Your task to perform on an android device: Open display settings Image 0: 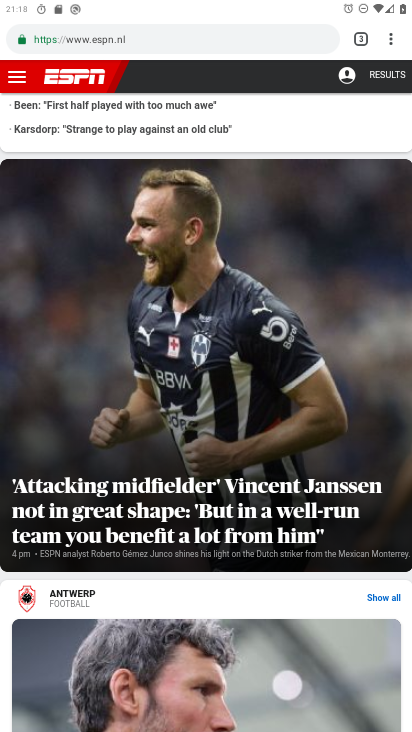
Step 0: drag from (171, 618) to (254, 158)
Your task to perform on an android device: Open display settings Image 1: 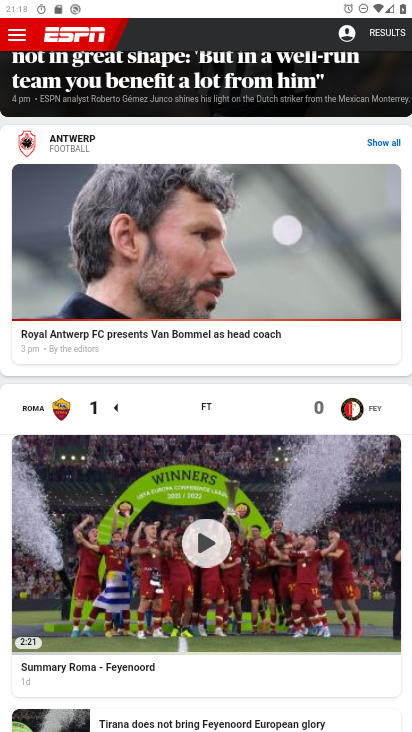
Step 1: press home button
Your task to perform on an android device: Open display settings Image 2: 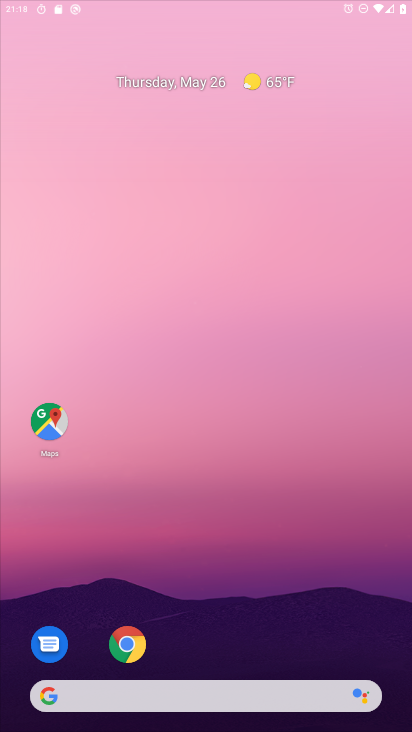
Step 2: drag from (182, 630) to (248, 189)
Your task to perform on an android device: Open display settings Image 3: 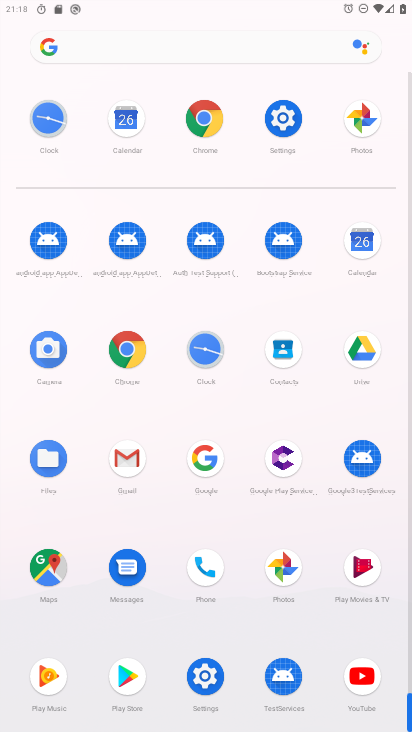
Step 3: click (288, 107)
Your task to perform on an android device: Open display settings Image 4: 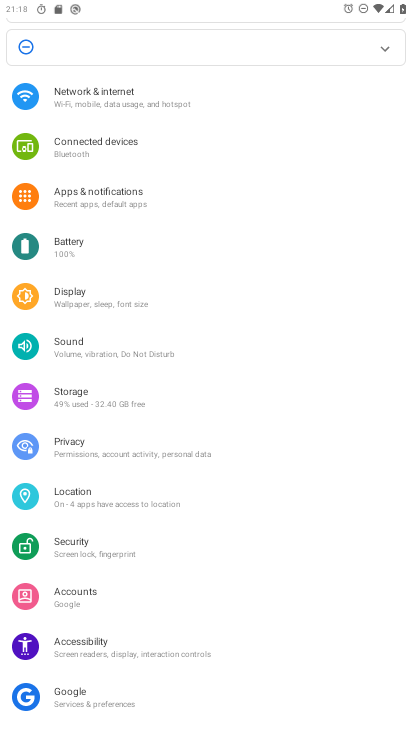
Step 4: click (122, 307)
Your task to perform on an android device: Open display settings Image 5: 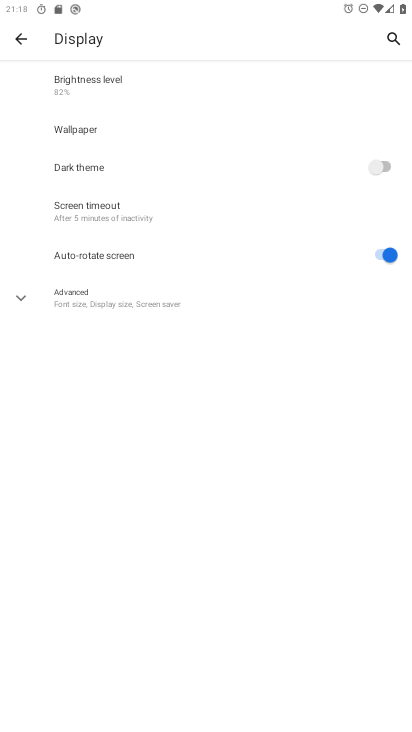
Step 5: task complete